Your task to perform on an android device: Go to CNN.com Image 0: 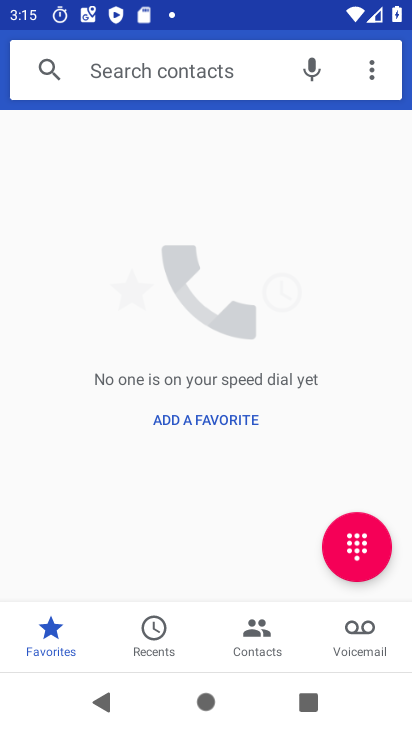
Step 0: press home button
Your task to perform on an android device: Go to CNN.com Image 1: 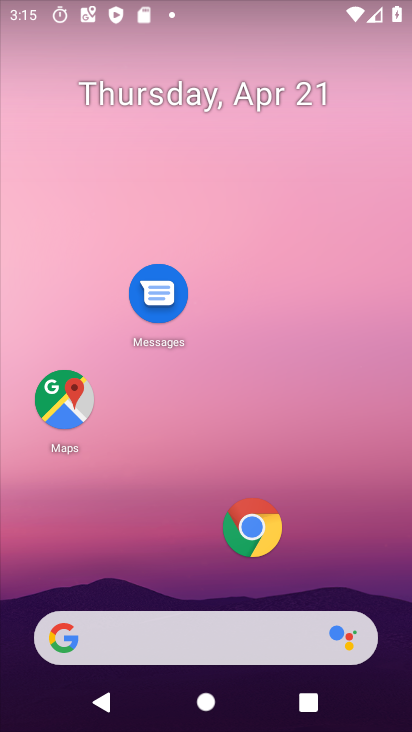
Step 1: click (246, 518)
Your task to perform on an android device: Go to CNN.com Image 2: 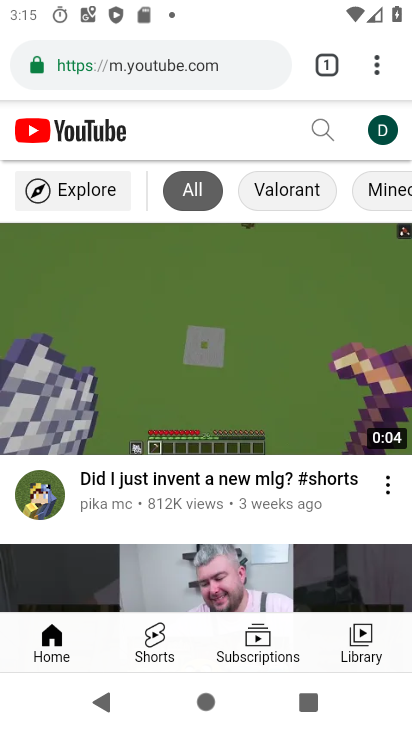
Step 2: click (327, 53)
Your task to perform on an android device: Go to CNN.com Image 3: 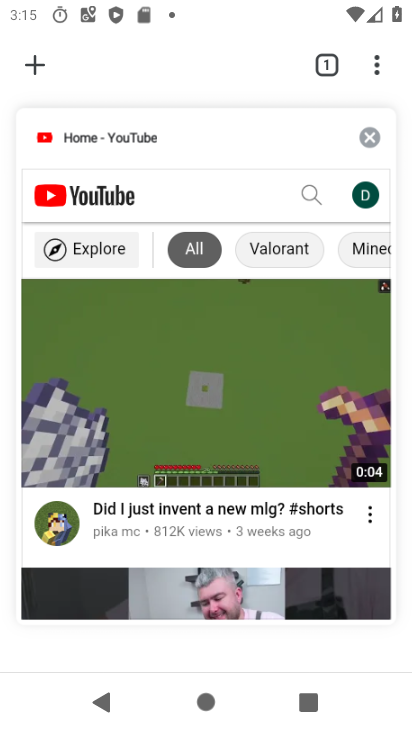
Step 3: click (369, 137)
Your task to perform on an android device: Go to CNN.com Image 4: 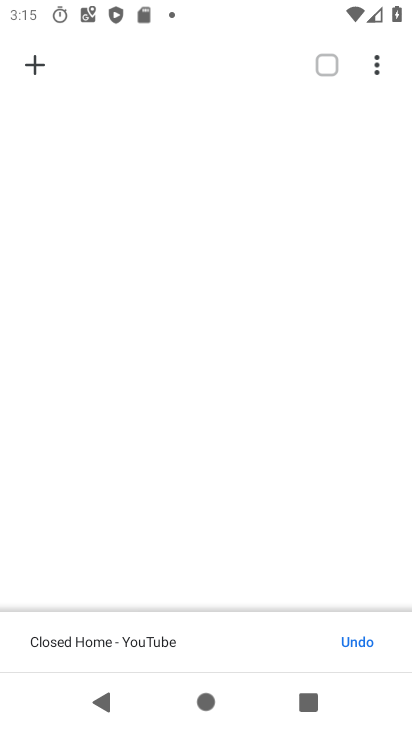
Step 4: click (34, 63)
Your task to perform on an android device: Go to CNN.com Image 5: 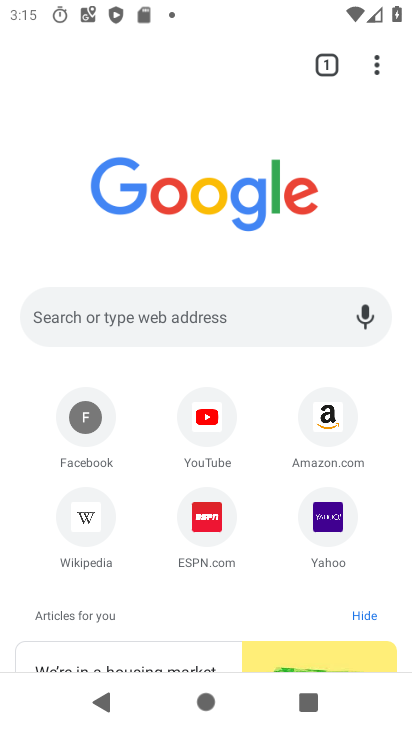
Step 5: click (57, 318)
Your task to perform on an android device: Go to CNN.com Image 6: 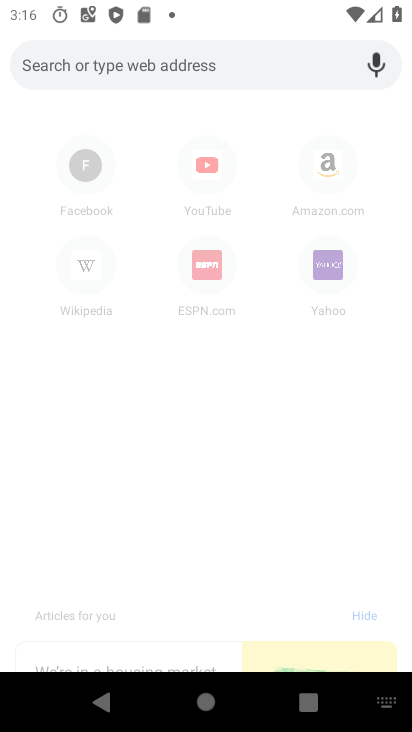
Step 6: type "cnn.com"
Your task to perform on an android device: Go to CNN.com Image 7: 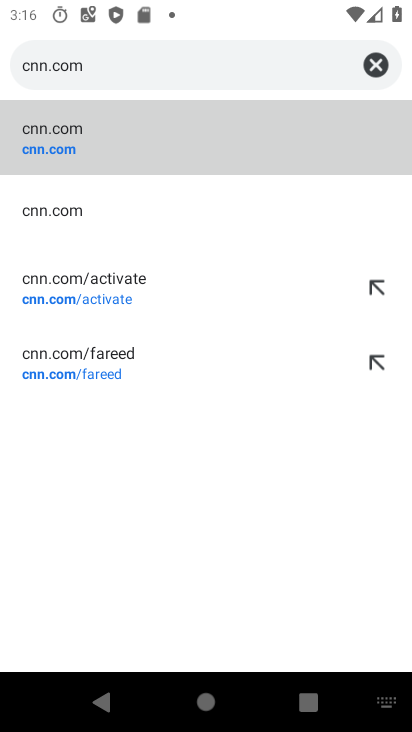
Step 7: click (50, 146)
Your task to perform on an android device: Go to CNN.com Image 8: 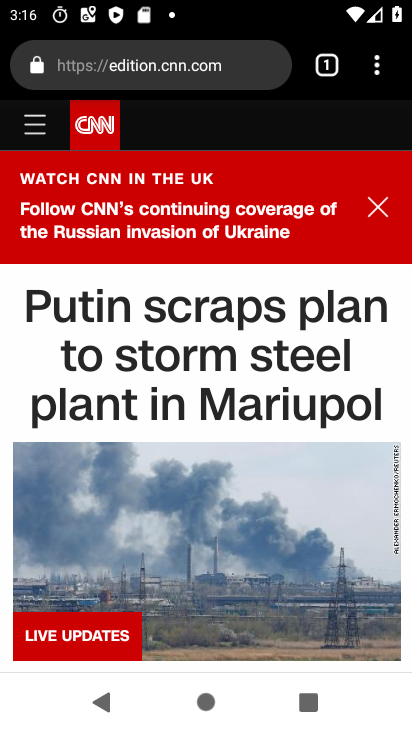
Step 8: task complete